Your task to perform on an android device: open the mobile data screen to see how much data has been used Image 0: 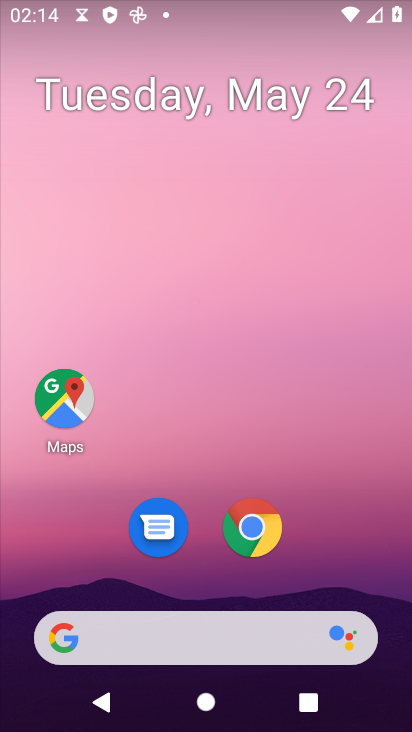
Step 0: press home button
Your task to perform on an android device: open the mobile data screen to see how much data has been used Image 1: 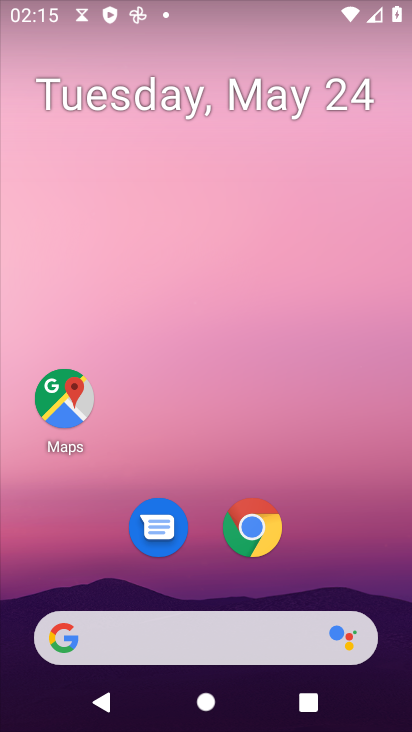
Step 1: drag from (216, 641) to (323, 45)
Your task to perform on an android device: open the mobile data screen to see how much data has been used Image 2: 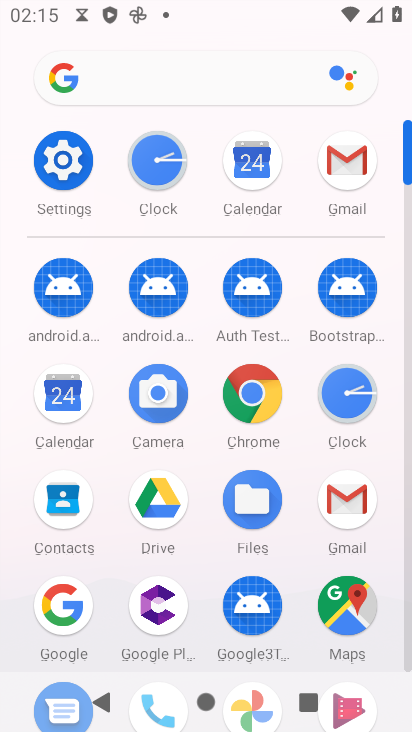
Step 2: click (64, 163)
Your task to perform on an android device: open the mobile data screen to see how much data has been used Image 3: 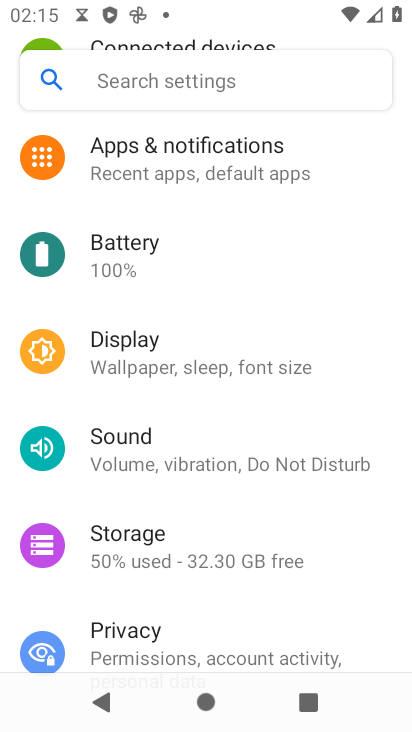
Step 3: drag from (240, 189) to (224, 607)
Your task to perform on an android device: open the mobile data screen to see how much data has been used Image 4: 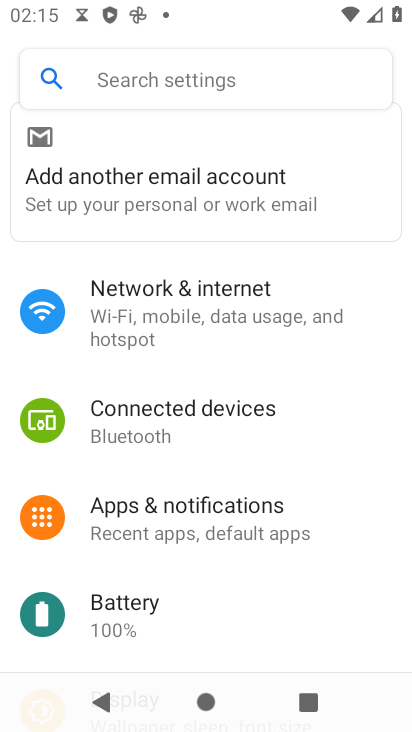
Step 4: click (232, 305)
Your task to perform on an android device: open the mobile data screen to see how much data has been used Image 5: 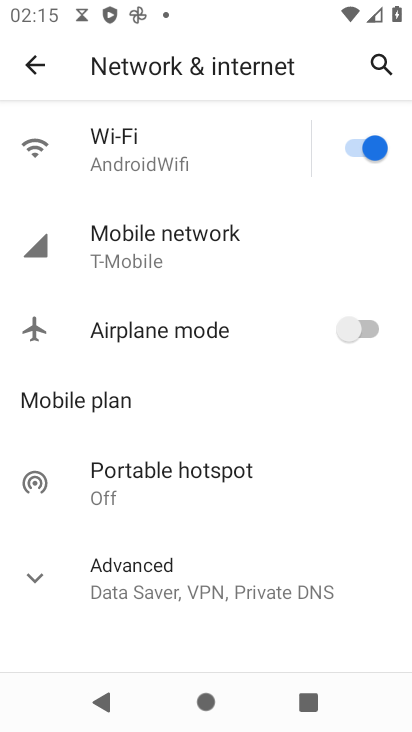
Step 5: click (182, 238)
Your task to perform on an android device: open the mobile data screen to see how much data has been used Image 6: 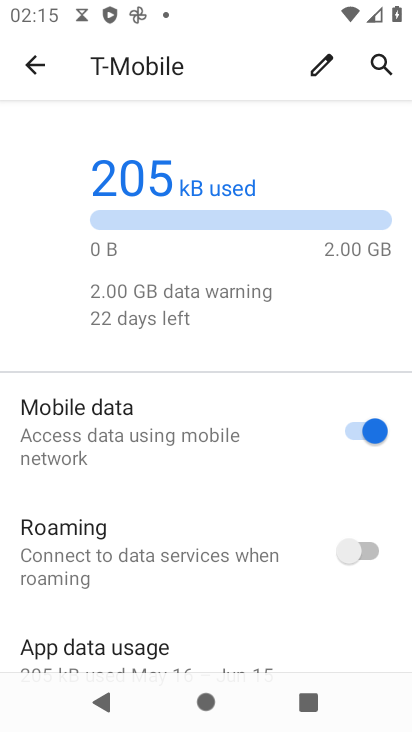
Step 6: task complete